Your task to perform on an android device: Open eBay Image 0: 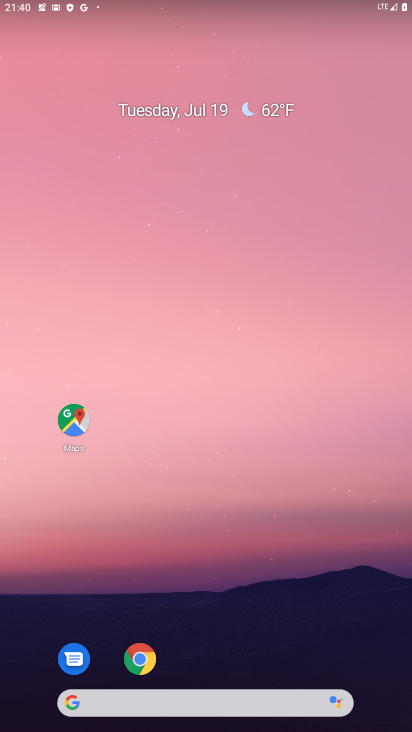
Step 0: press home button
Your task to perform on an android device: Open eBay Image 1: 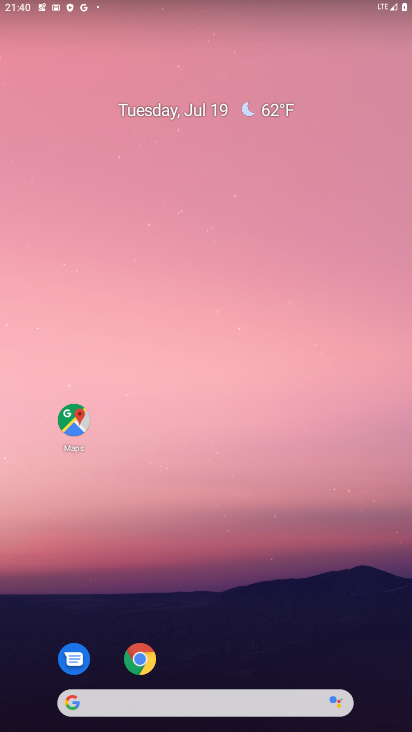
Step 1: click (149, 665)
Your task to perform on an android device: Open eBay Image 2: 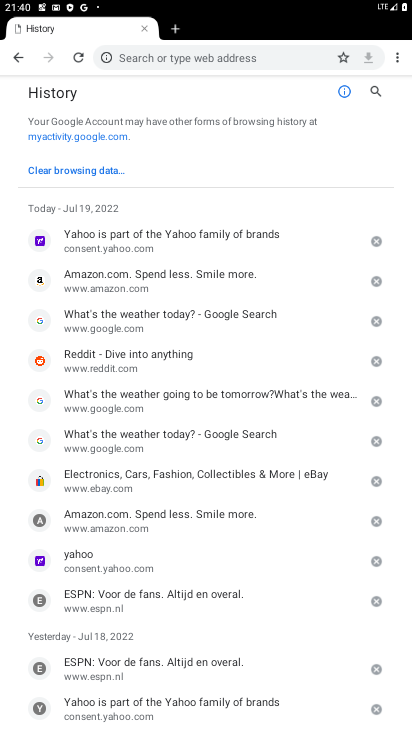
Step 2: click (177, 25)
Your task to perform on an android device: Open eBay Image 3: 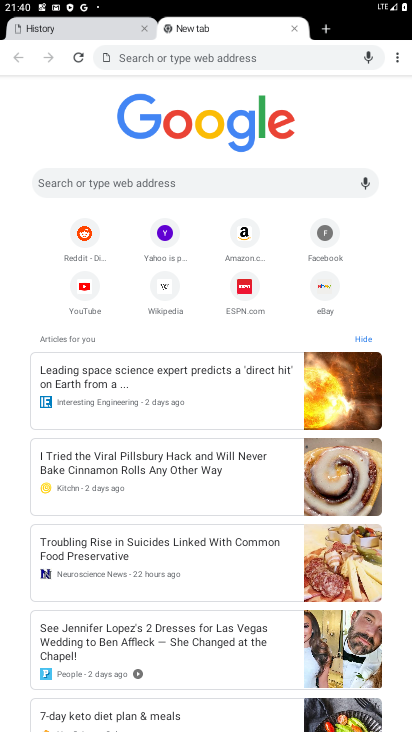
Step 3: click (338, 284)
Your task to perform on an android device: Open eBay Image 4: 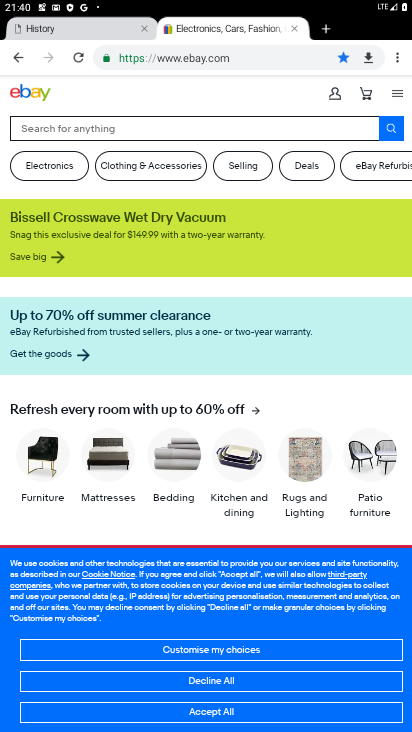
Step 4: task complete